Your task to perform on an android device: Open location settings Image 0: 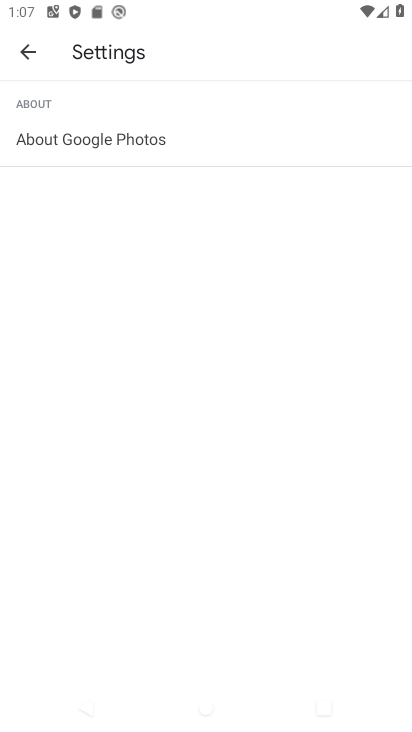
Step 0: press home button
Your task to perform on an android device: Open location settings Image 1: 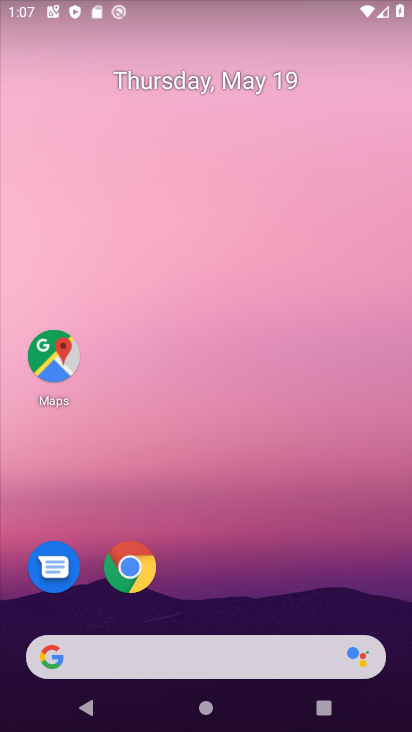
Step 1: drag from (80, 485) to (311, 163)
Your task to perform on an android device: Open location settings Image 2: 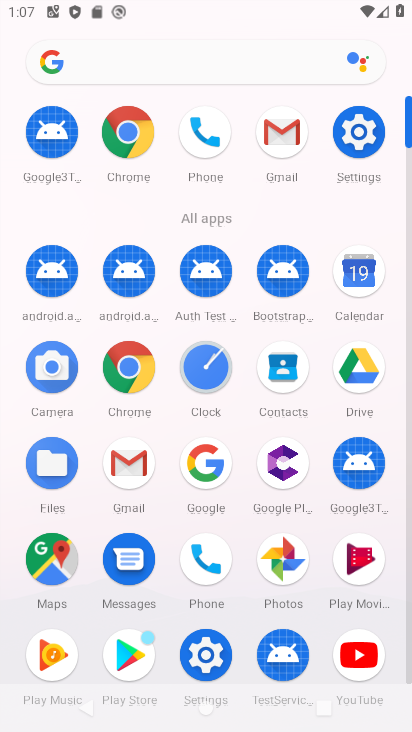
Step 2: click (367, 148)
Your task to perform on an android device: Open location settings Image 3: 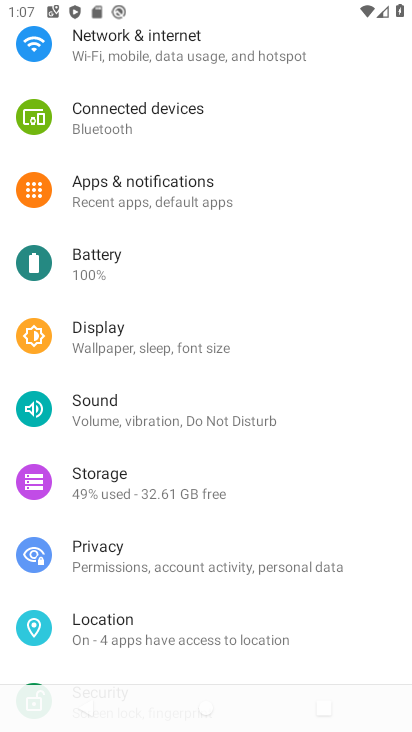
Step 3: click (158, 626)
Your task to perform on an android device: Open location settings Image 4: 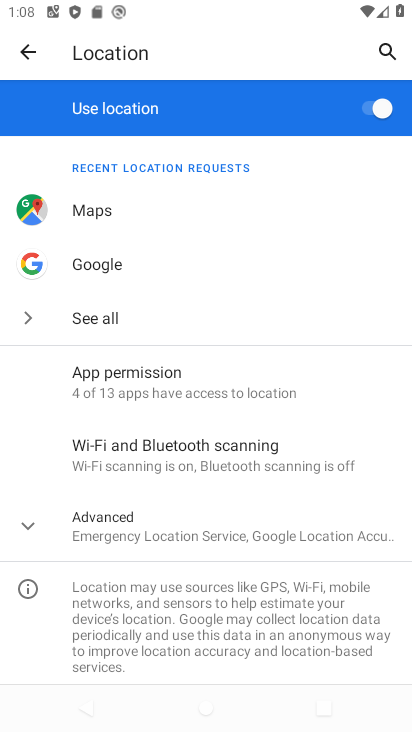
Step 4: task complete